Your task to perform on an android device: Open Yahoo.com Image 0: 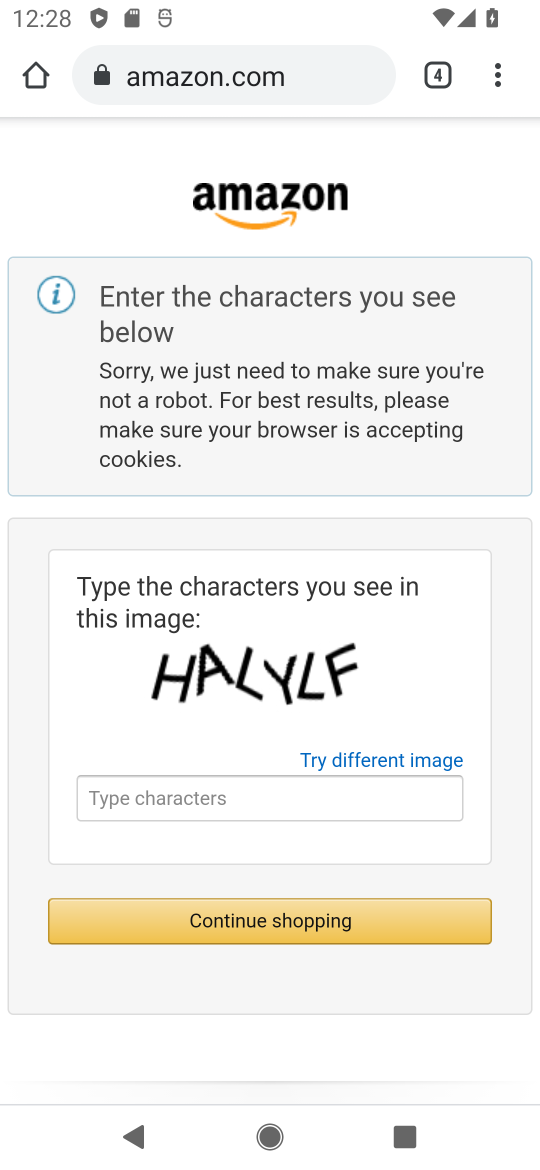
Step 0: click (440, 60)
Your task to perform on an android device: Open Yahoo.com Image 1: 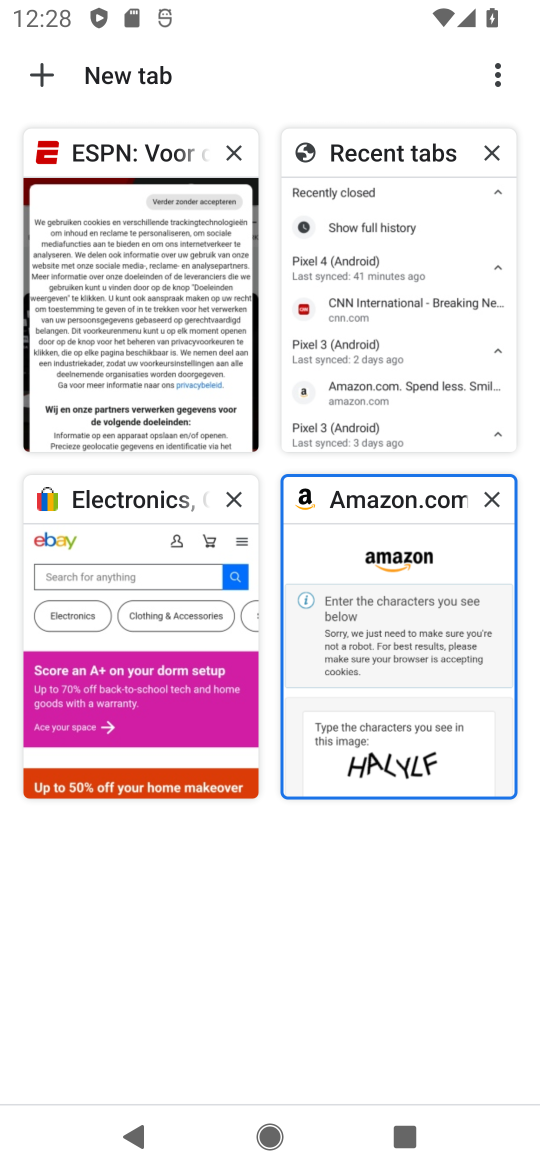
Step 1: click (49, 64)
Your task to perform on an android device: Open Yahoo.com Image 2: 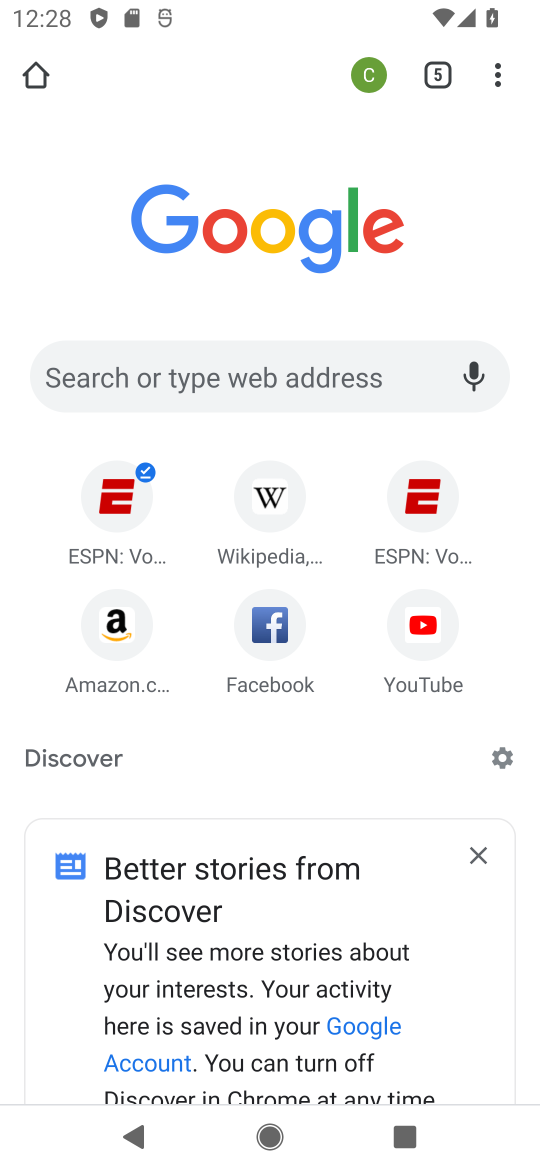
Step 2: click (179, 377)
Your task to perform on an android device: Open Yahoo.com Image 3: 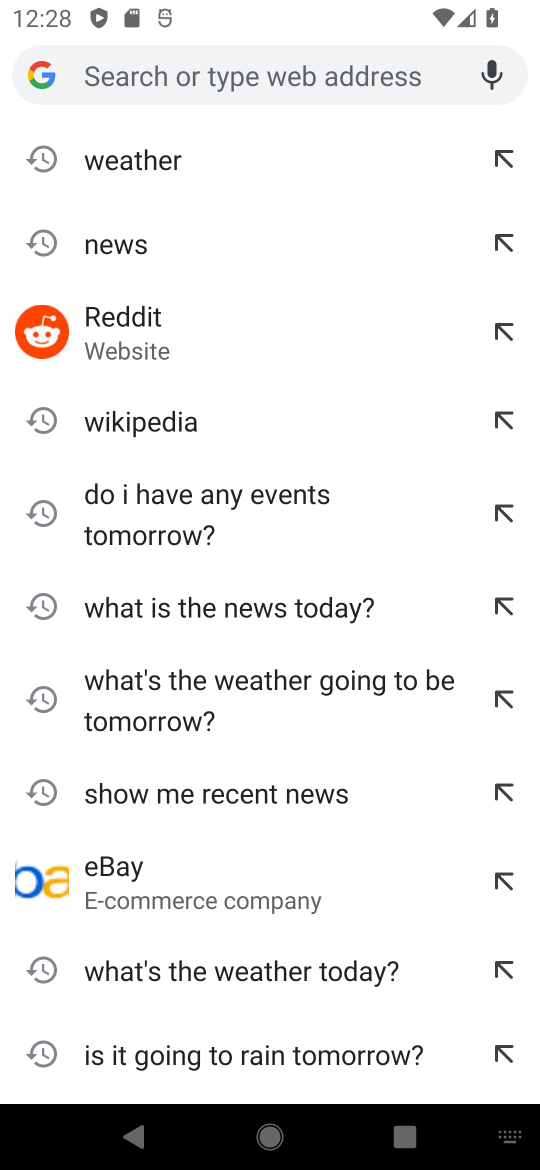
Step 3: type "yahoo.com"
Your task to perform on an android device: Open Yahoo.com Image 4: 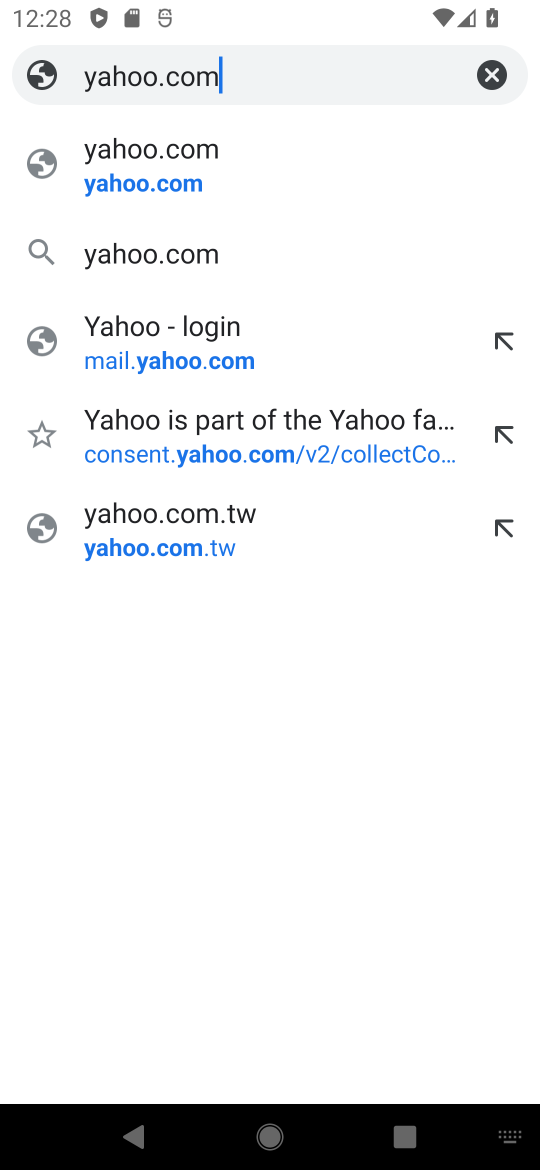
Step 4: click (182, 176)
Your task to perform on an android device: Open Yahoo.com Image 5: 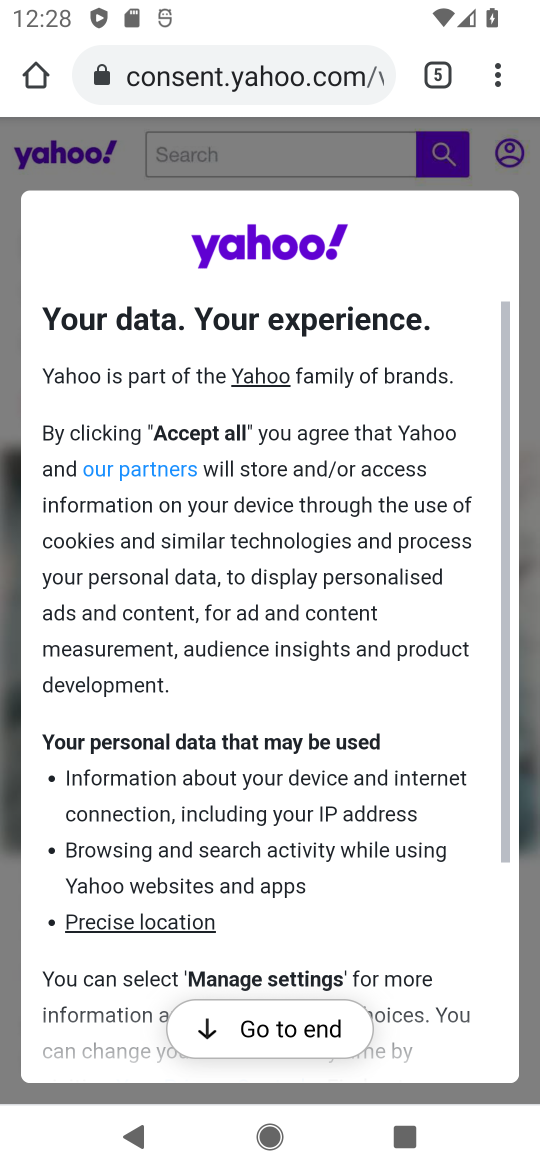
Step 5: task complete